Your task to perform on an android device: Do I have any events this weekend? Image 0: 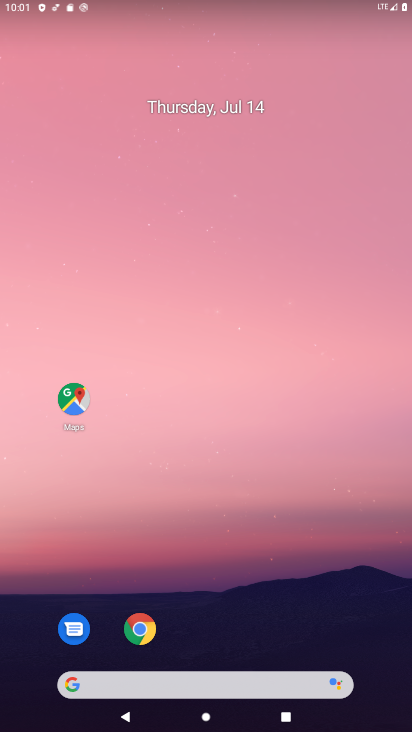
Step 0: drag from (302, 588) to (325, 1)
Your task to perform on an android device: Do I have any events this weekend? Image 1: 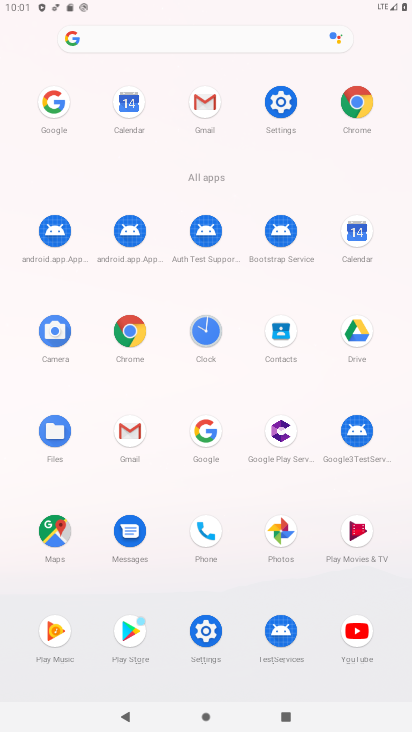
Step 1: click (352, 217)
Your task to perform on an android device: Do I have any events this weekend? Image 2: 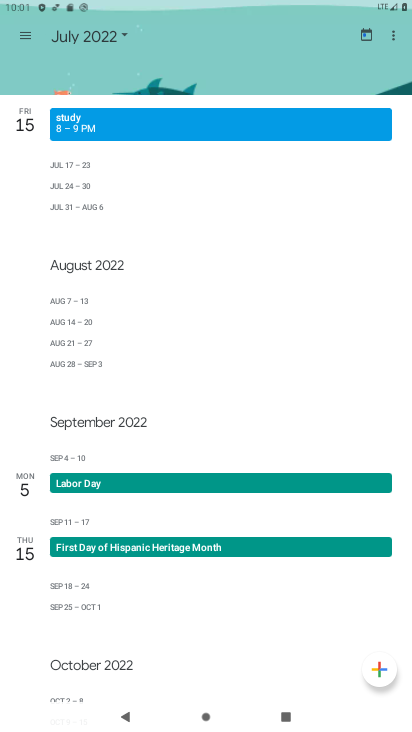
Step 2: click (95, 40)
Your task to perform on an android device: Do I have any events this weekend? Image 3: 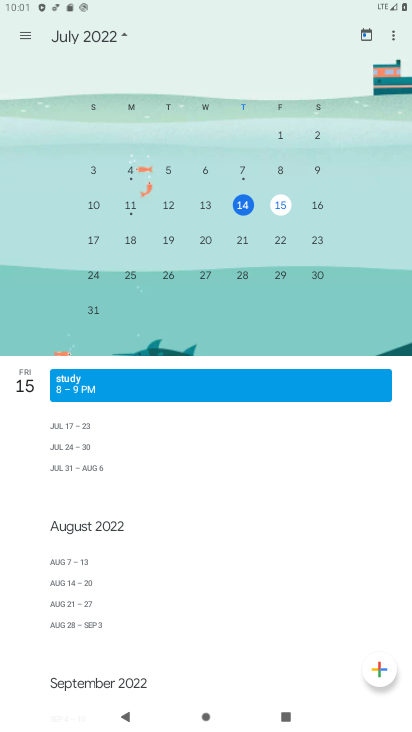
Step 3: click (311, 199)
Your task to perform on an android device: Do I have any events this weekend? Image 4: 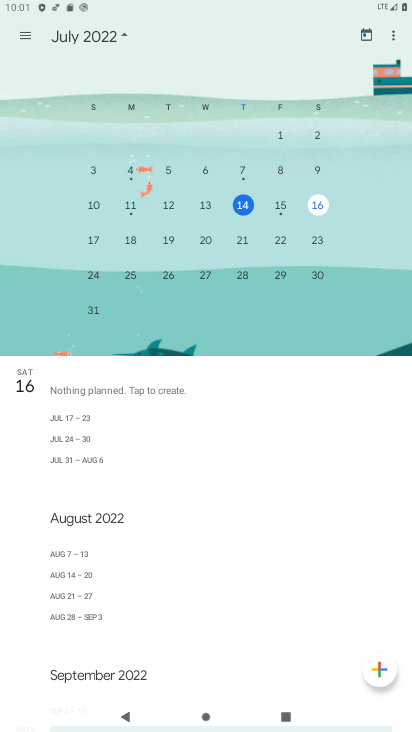
Step 4: click (92, 232)
Your task to perform on an android device: Do I have any events this weekend? Image 5: 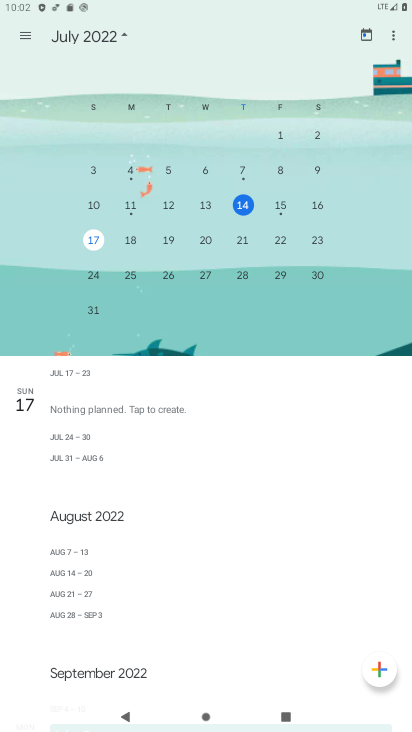
Step 5: task complete